Your task to perform on an android device: add a contact in the contacts app Image 0: 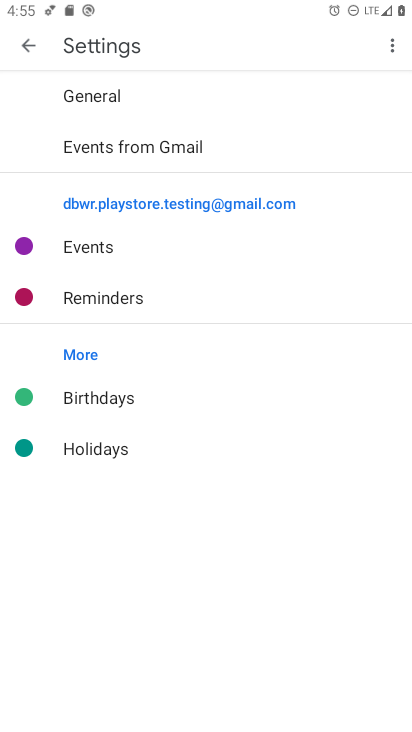
Step 0: press home button
Your task to perform on an android device: add a contact in the contacts app Image 1: 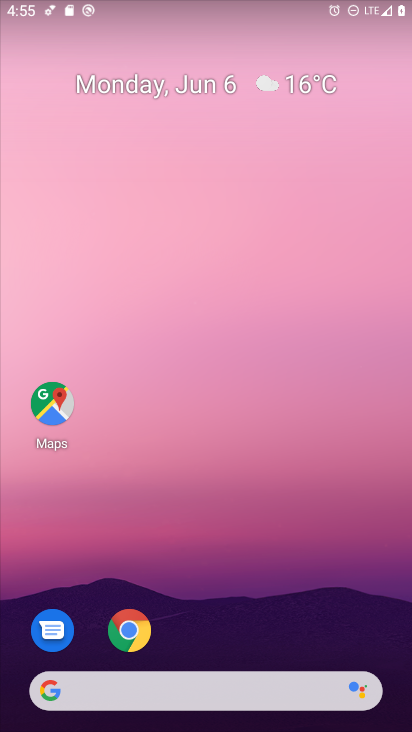
Step 1: drag from (276, 647) to (230, 56)
Your task to perform on an android device: add a contact in the contacts app Image 2: 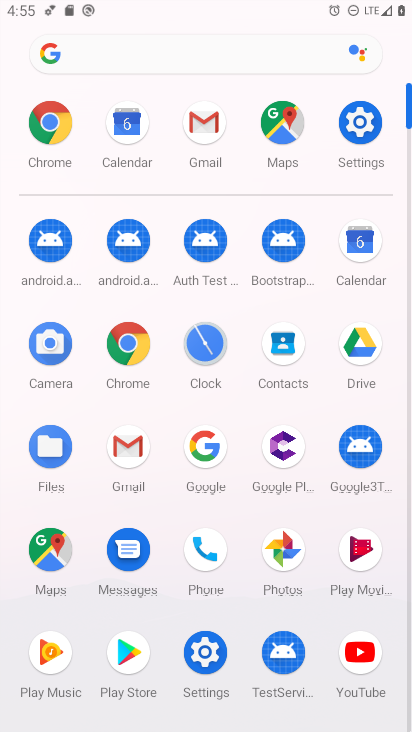
Step 2: click (278, 353)
Your task to perform on an android device: add a contact in the contacts app Image 3: 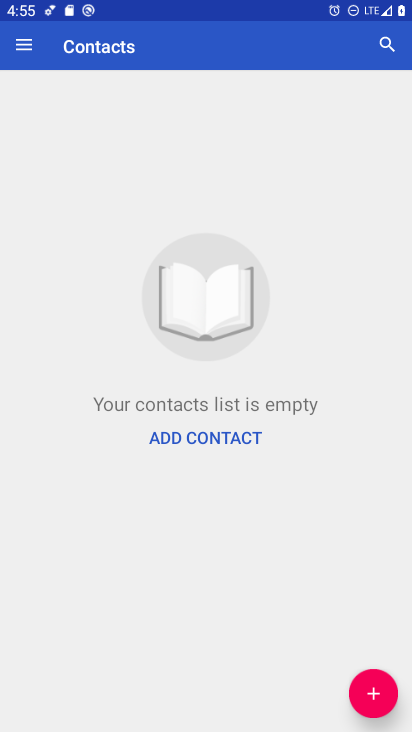
Step 3: type "gsdf"
Your task to perform on an android device: add a contact in the contacts app Image 4: 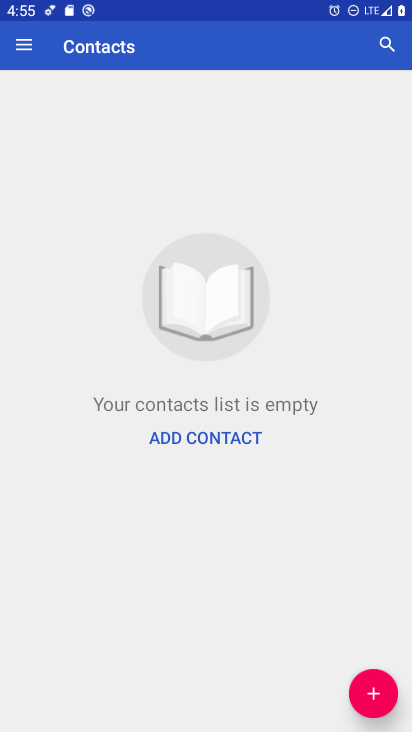
Step 4: click (385, 680)
Your task to perform on an android device: add a contact in the contacts app Image 5: 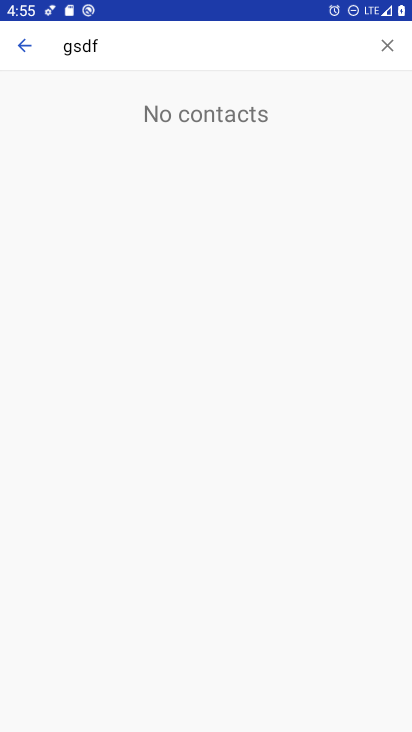
Step 5: click (383, 37)
Your task to perform on an android device: add a contact in the contacts app Image 6: 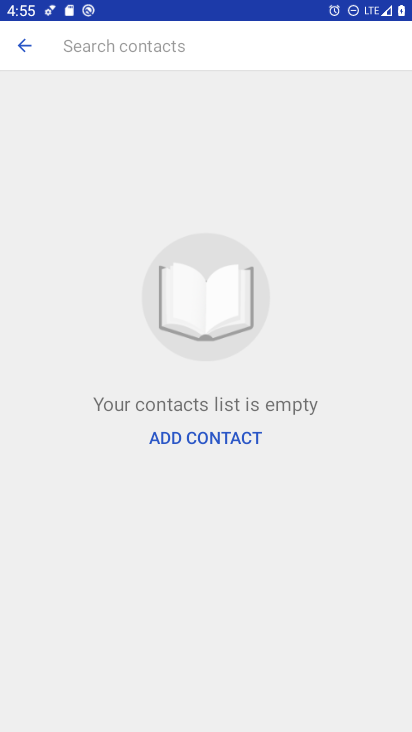
Step 6: click (179, 436)
Your task to perform on an android device: add a contact in the contacts app Image 7: 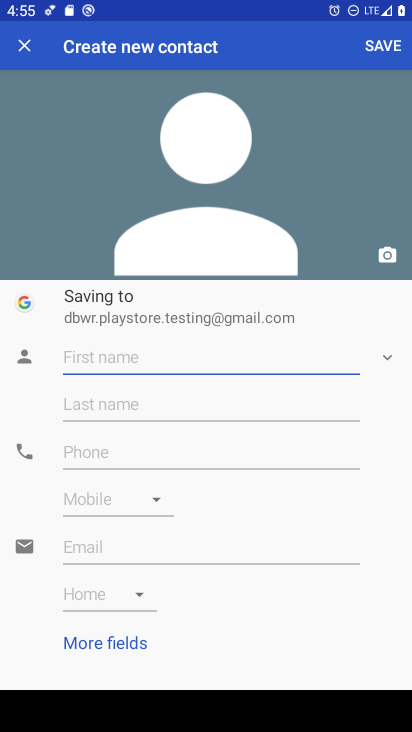
Step 7: type "gsfg"
Your task to perform on an android device: add a contact in the contacts app Image 8: 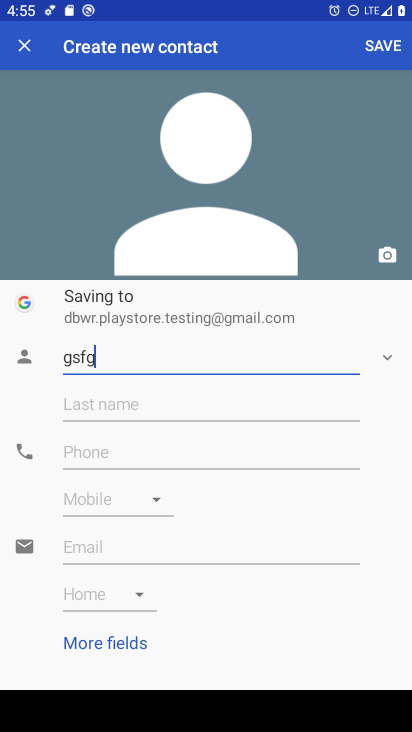
Step 8: type ""
Your task to perform on an android device: add a contact in the contacts app Image 9: 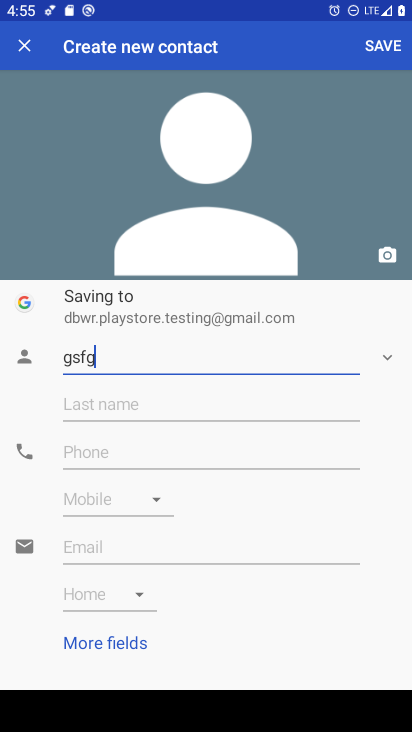
Step 9: click (153, 414)
Your task to perform on an android device: add a contact in the contacts app Image 10: 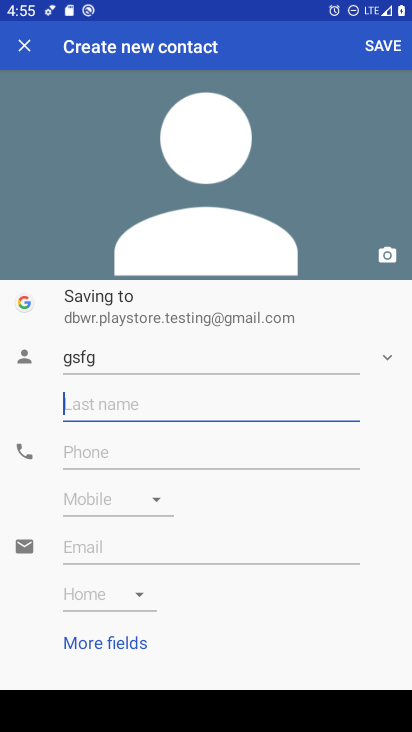
Step 10: type "dgs"
Your task to perform on an android device: add a contact in the contacts app Image 11: 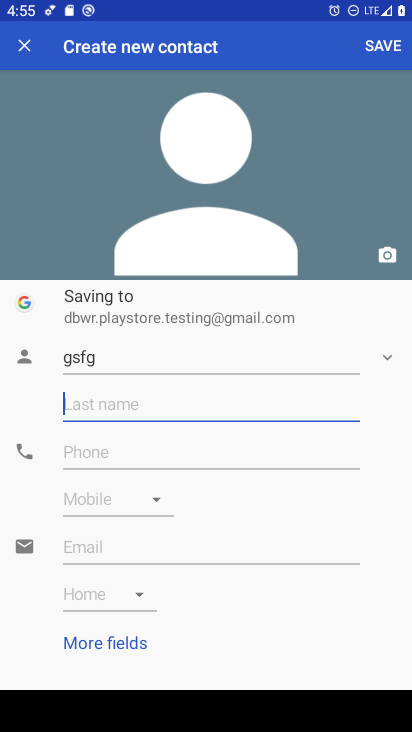
Step 11: click (267, 464)
Your task to perform on an android device: add a contact in the contacts app Image 12: 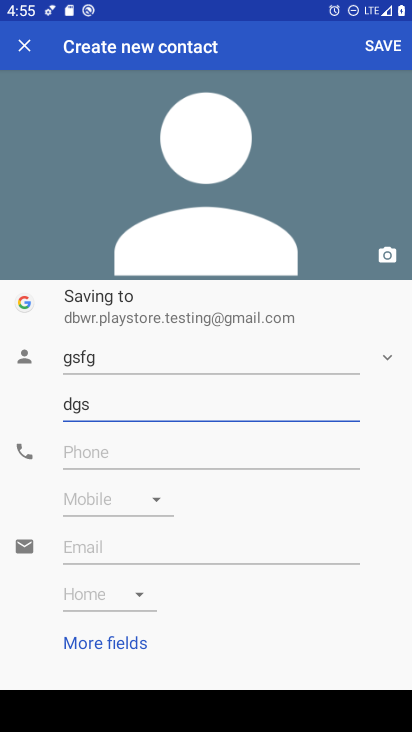
Step 12: type ""
Your task to perform on an android device: add a contact in the contacts app Image 13: 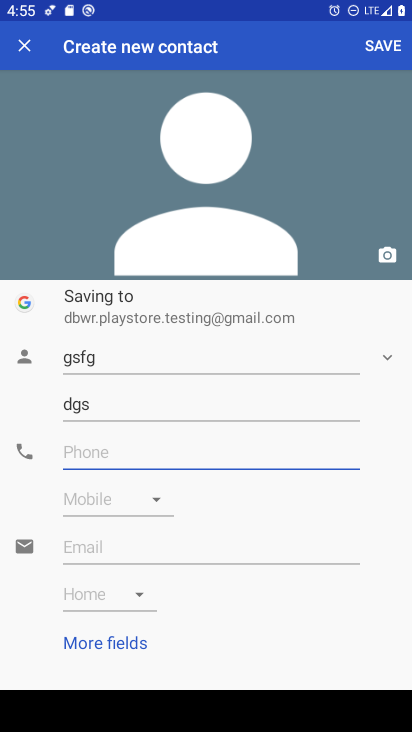
Step 13: type "4563456456"
Your task to perform on an android device: add a contact in the contacts app Image 14: 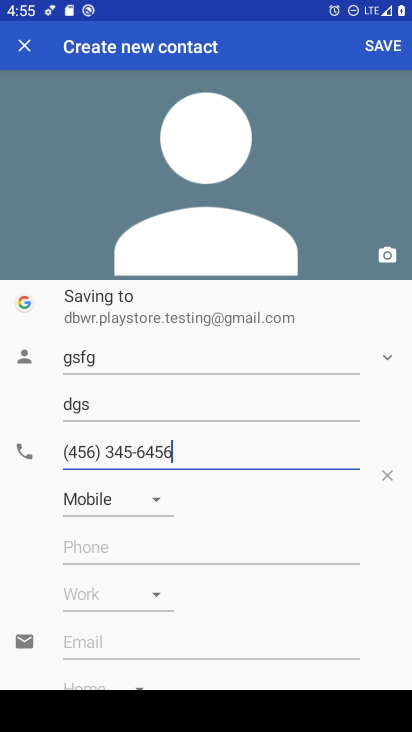
Step 14: type ""
Your task to perform on an android device: add a contact in the contacts app Image 15: 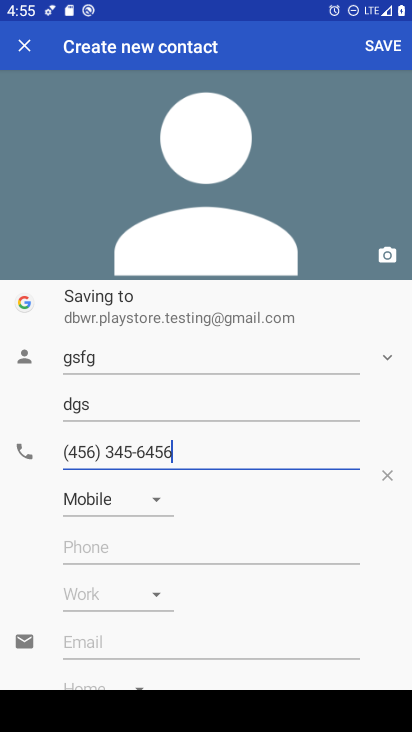
Step 15: click (388, 39)
Your task to perform on an android device: add a contact in the contacts app Image 16: 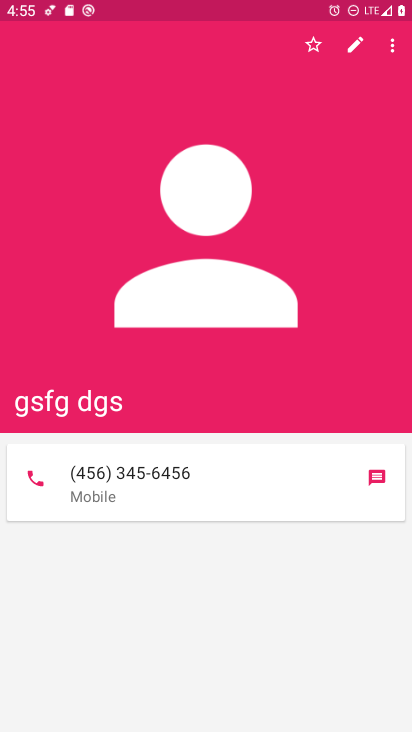
Step 16: task complete